Your task to perform on an android device: Open Reddit.com Image 0: 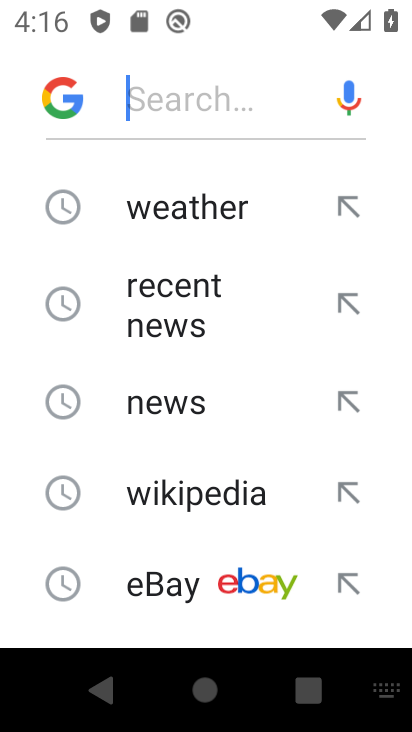
Step 0: press home button
Your task to perform on an android device: Open Reddit.com Image 1: 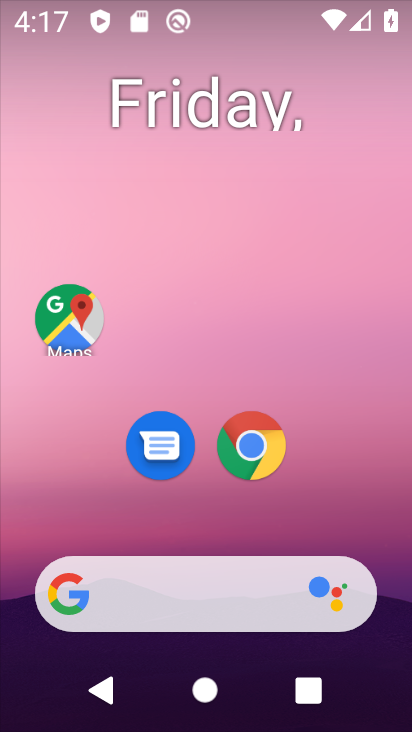
Step 1: click (65, 604)
Your task to perform on an android device: Open Reddit.com Image 2: 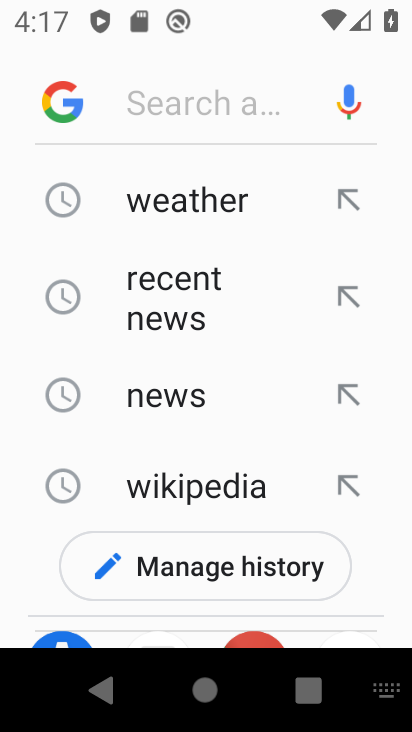
Step 2: type "reddit.com"
Your task to perform on an android device: Open Reddit.com Image 3: 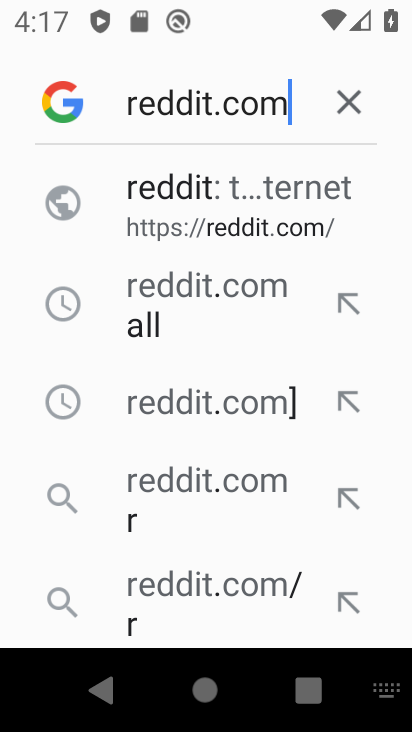
Step 3: click (226, 190)
Your task to perform on an android device: Open Reddit.com Image 4: 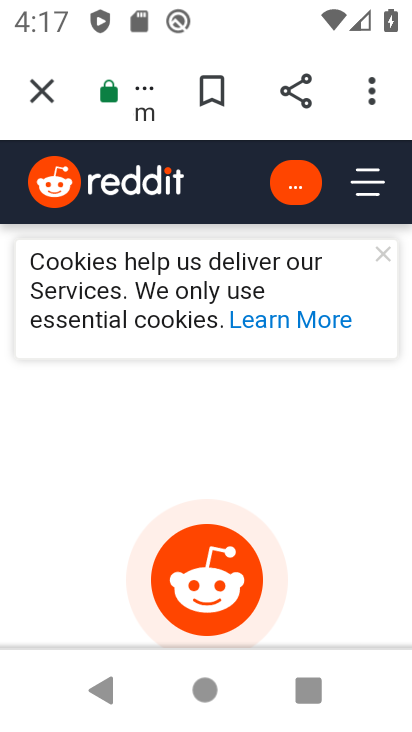
Step 4: task complete